Your task to perform on an android device: Open notification settings Image 0: 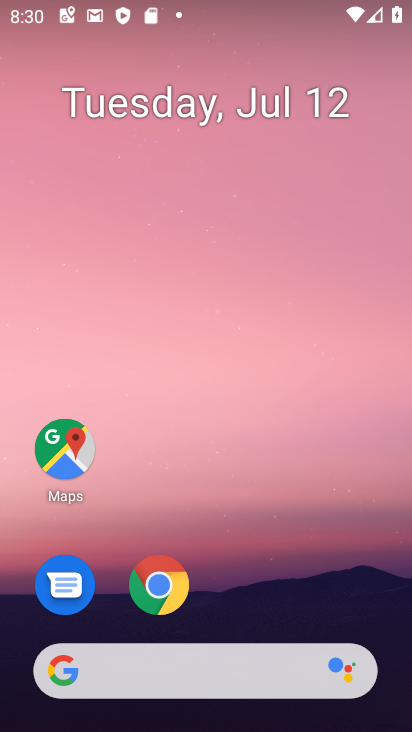
Step 0: drag from (259, 562) to (249, 117)
Your task to perform on an android device: Open notification settings Image 1: 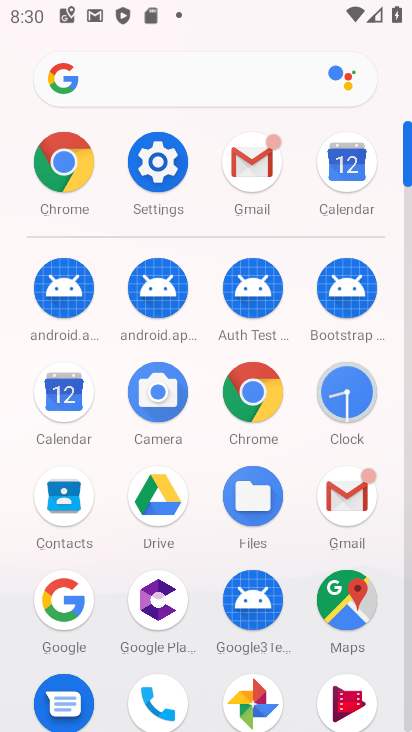
Step 1: click (158, 153)
Your task to perform on an android device: Open notification settings Image 2: 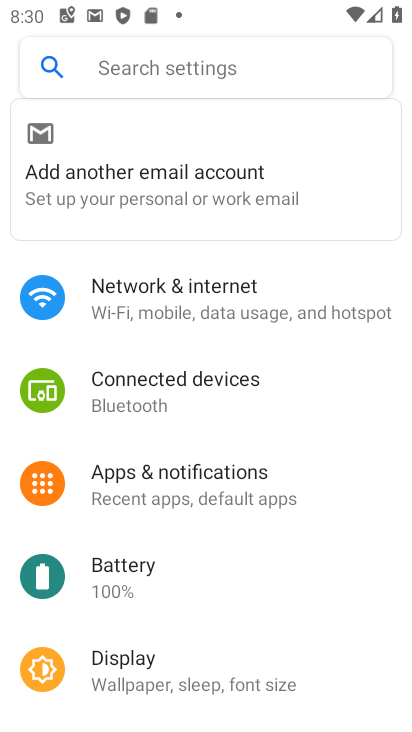
Step 2: click (171, 478)
Your task to perform on an android device: Open notification settings Image 3: 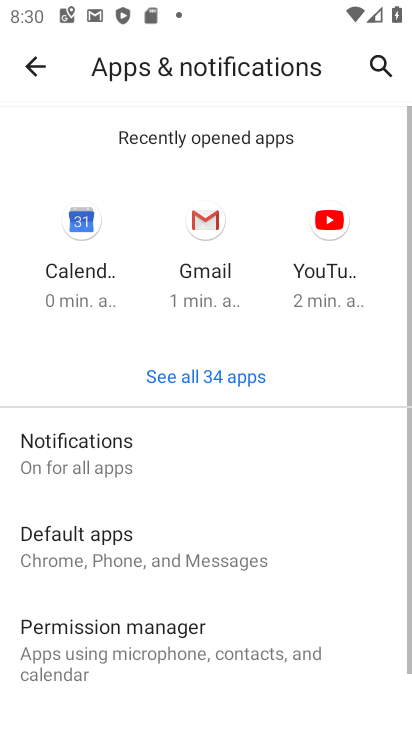
Step 3: click (130, 452)
Your task to perform on an android device: Open notification settings Image 4: 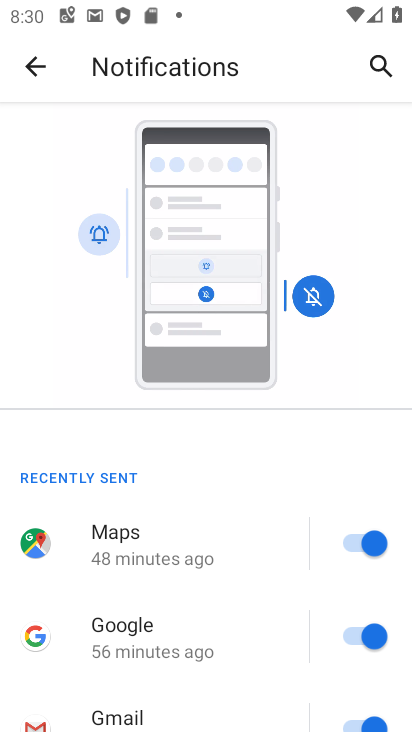
Step 4: task complete